Your task to perform on an android device: turn off translation in the chrome app Image 0: 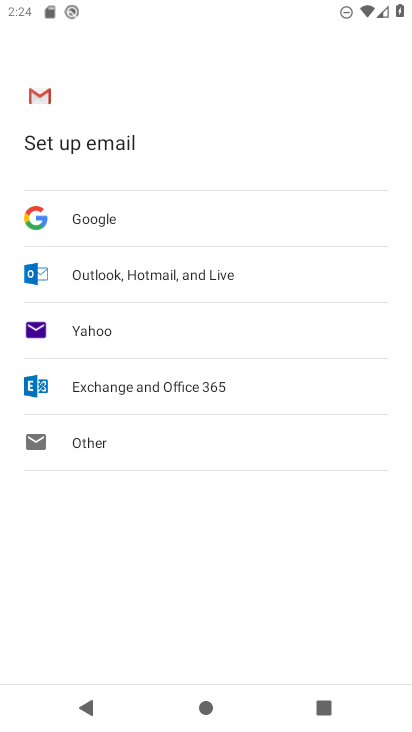
Step 0: press home button
Your task to perform on an android device: turn off translation in the chrome app Image 1: 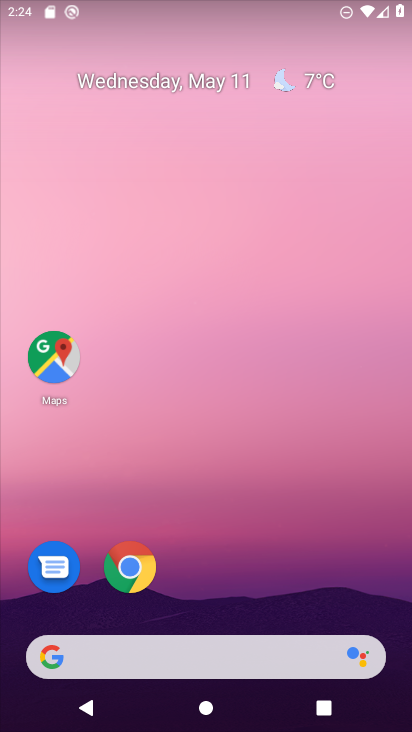
Step 1: click (143, 556)
Your task to perform on an android device: turn off translation in the chrome app Image 2: 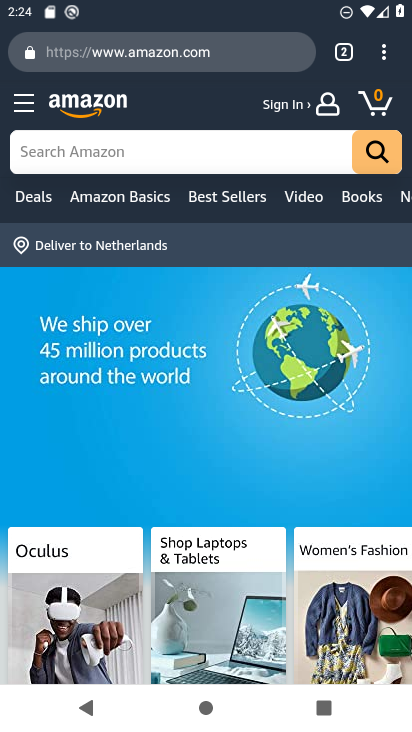
Step 2: click (388, 51)
Your task to perform on an android device: turn off translation in the chrome app Image 3: 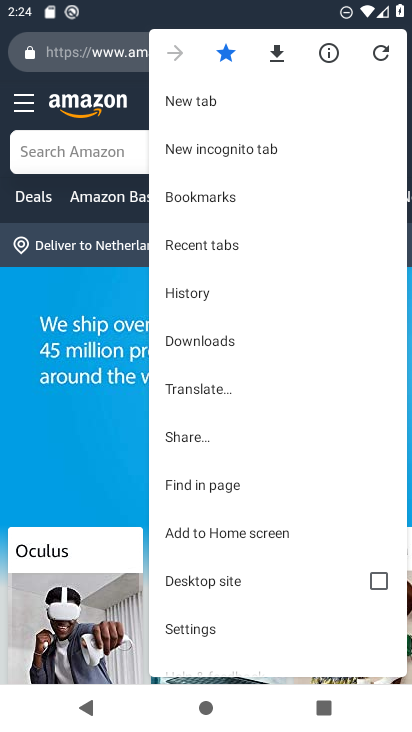
Step 3: click (232, 392)
Your task to perform on an android device: turn off translation in the chrome app Image 4: 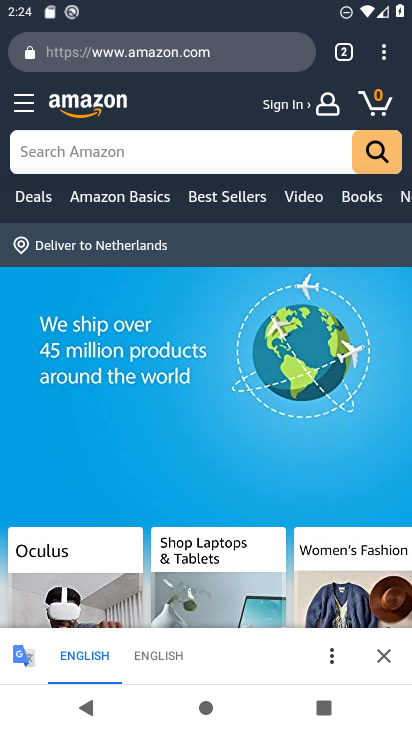
Step 4: click (382, 58)
Your task to perform on an android device: turn off translation in the chrome app Image 5: 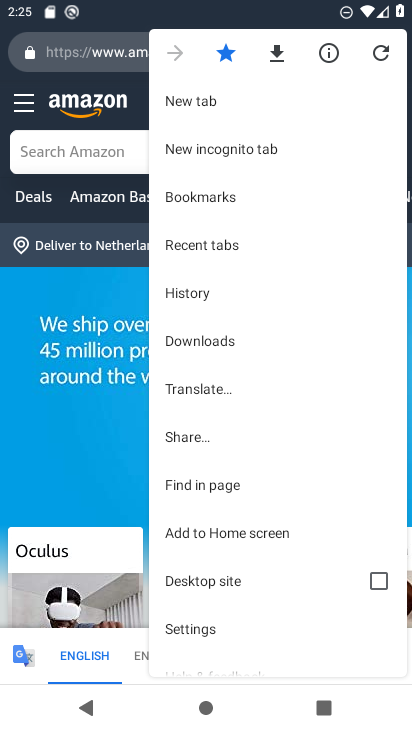
Step 5: click (250, 625)
Your task to perform on an android device: turn off translation in the chrome app Image 6: 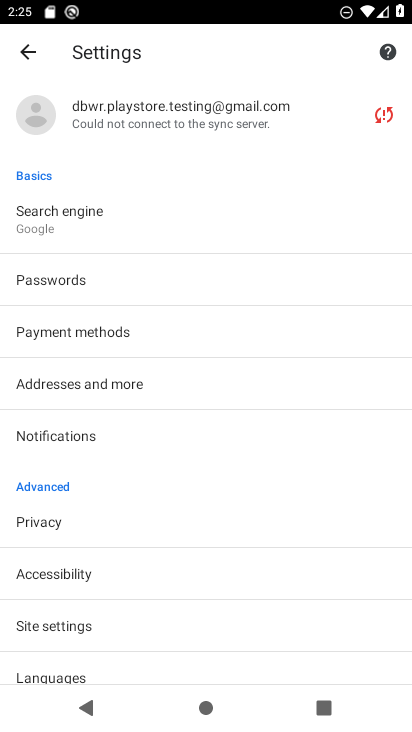
Step 6: click (117, 664)
Your task to perform on an android device: turn off translation in the chrome app Image 7: 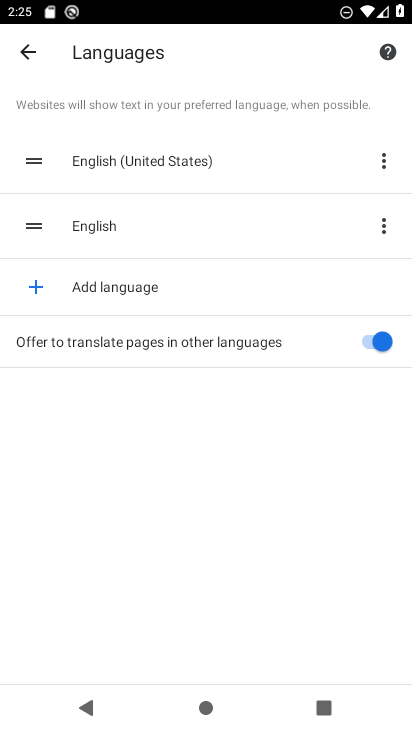
Step 7: click (382, 337)
Your task to perform on an android device: turn off translation in the chrome app Image 8: 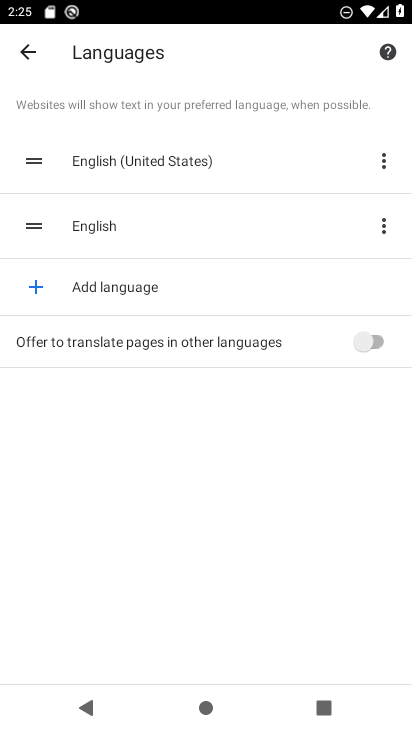
Step 8: task complete